Your task to perform on an android device: Open Google Maps and go to "Timeline" Image 0: 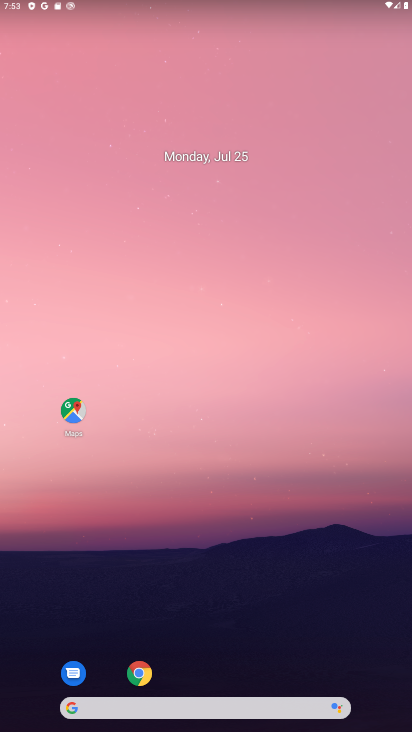
Step 0: drag from (286, 681) to (234, 76)
Your task to perform on an android device: Open Google Maps and go to "Timeline" Image 1: 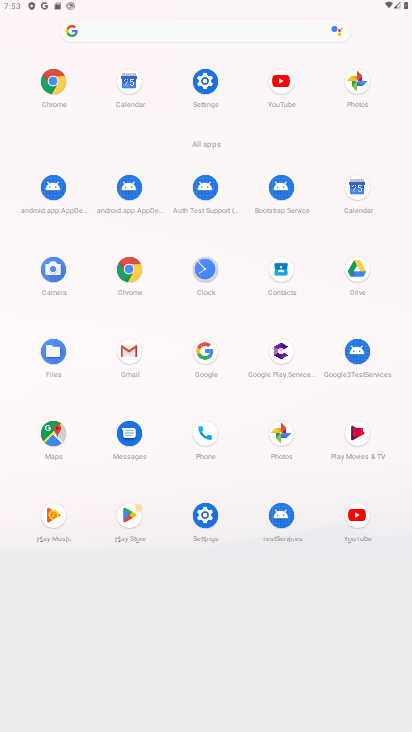
Step 1: click (43, 428)
Your task to perform on an android device: Open Google Maps and go to "Timeline" Image 2: 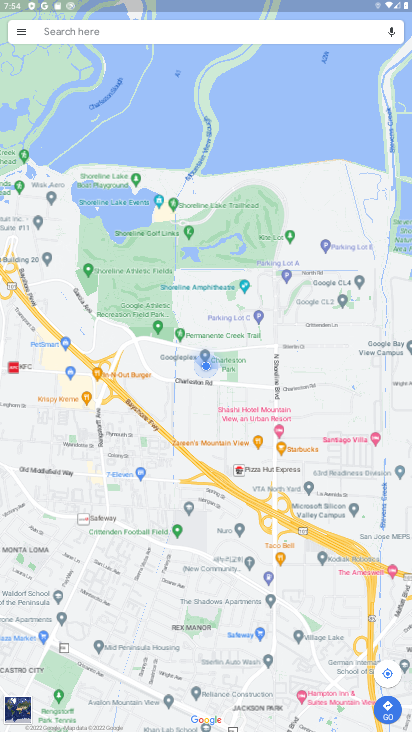
Step 2: task complete